Your task to perform on an android device: turn off sleep mode Image 0: 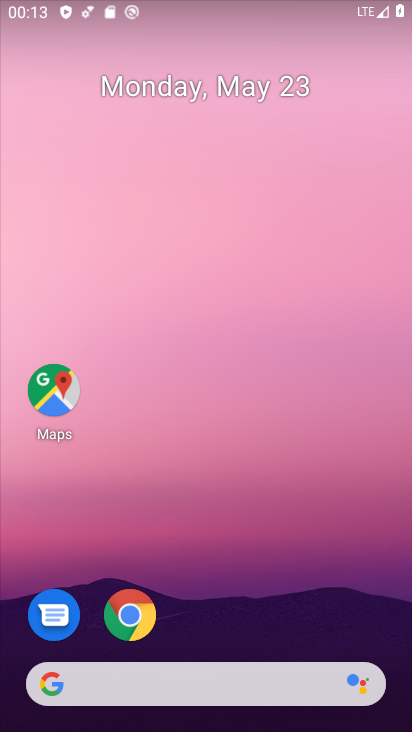
Step 0: drag from (258, 500) to (339, 1)
Your task to perform on an android device: turn off sleep mode Image 1: 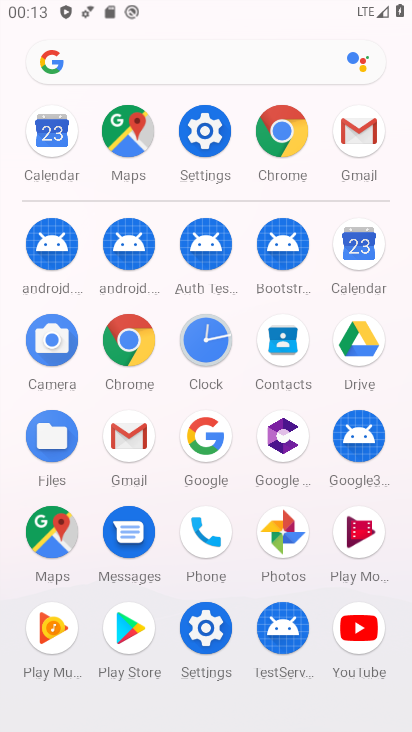
Step 1: click (218, 102)
Your task to perform on an android device: turn off sleep mode Image 2: 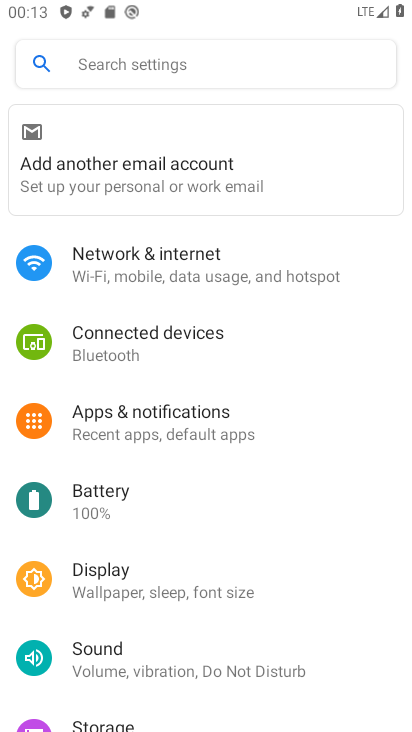
Step 2: click (155, 68)
Your task to perform on an android device: turn off sleep mode Image 3: 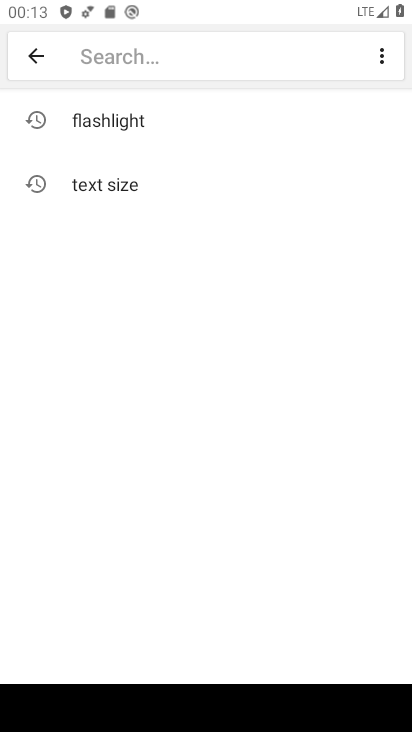
Step 3: type "sleep mode"
Your task to perform on an android device: turn off sleep mode Image 4: 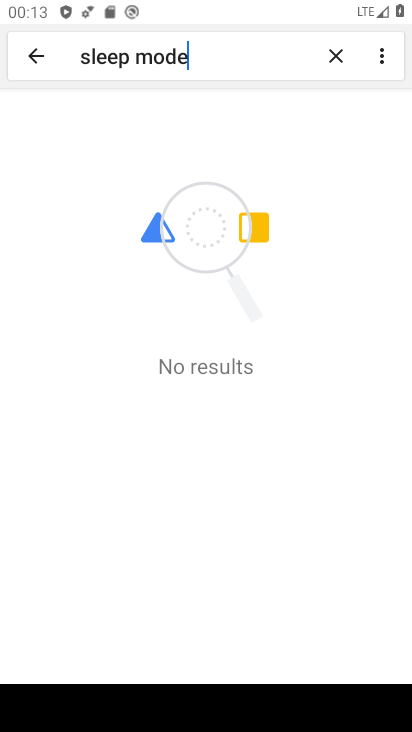
Step 4: task complete